Your task to perform on an android device: Go to Wikipedia Image 0: 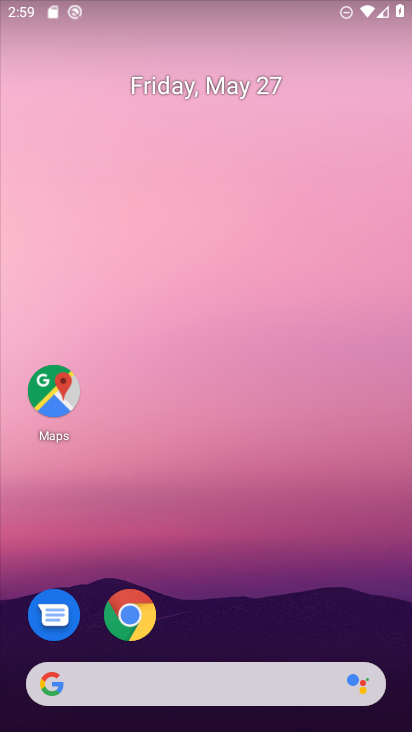
Step 0: click (131, 611)
Your task to perform on an android device: Go to Wikipedia Image 1: 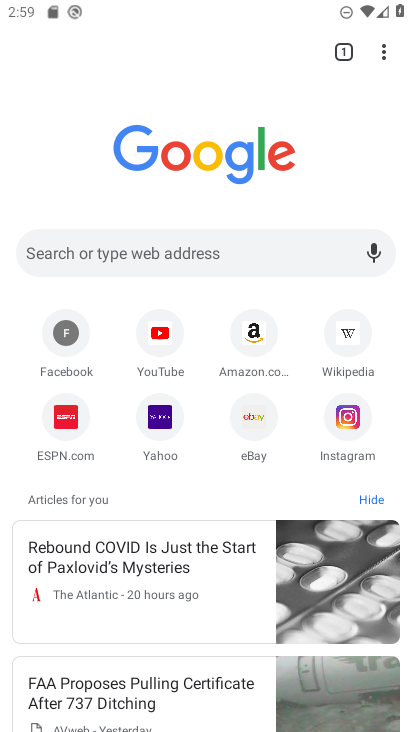
Step 1: click (360, 326)
Your task to perform on an android device: Go to Wikipedia Image 2: 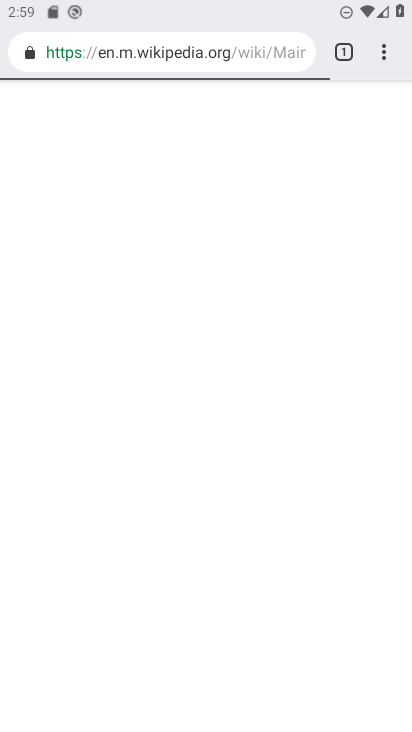
Step 2: task complete